Your task to perform on an android device: Turn on the flashlight Image 0: 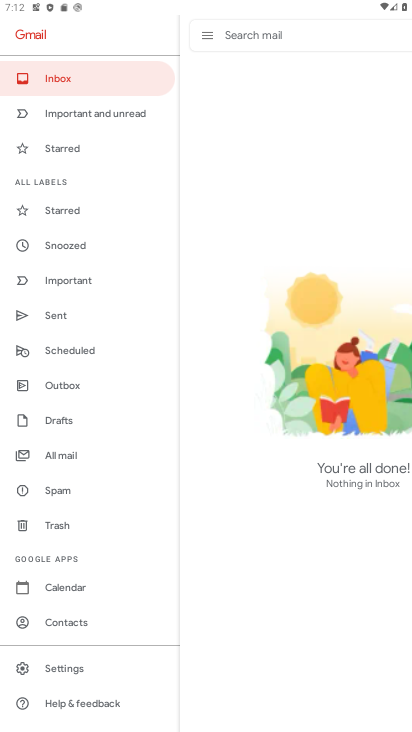
Step 0: press home button
Your task to perform on an android device: Turn on the flashlight Image 1: 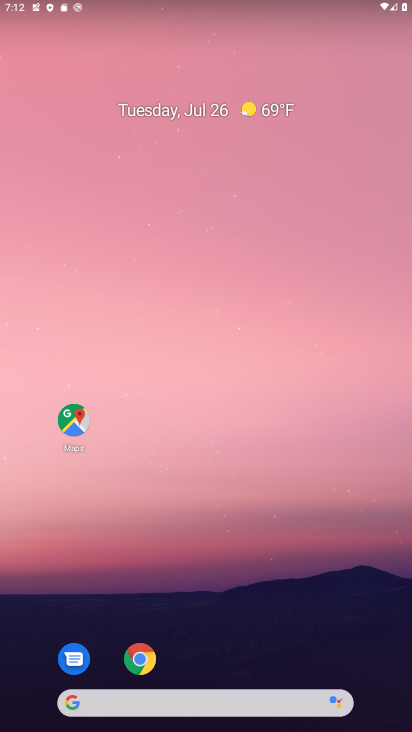
Step 1: drag from (265, 705) to (299, 86)
Your task to perform on an android device: Turn on the flashlight Image 2: 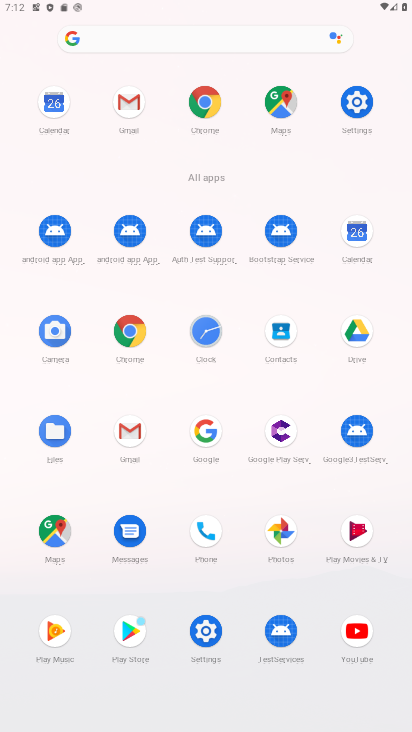
Step 2: click (354, 115)
Your task to perform on an android device: Turn on the flashlight Image 3: 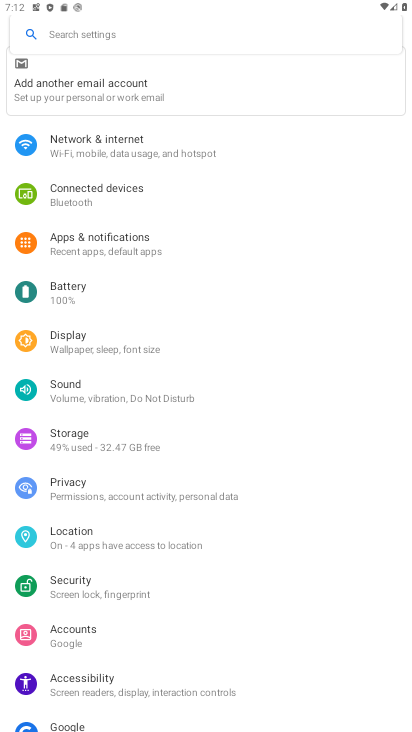
Step 3: click (84, 37)
Your task to perform on an android device: Turn on the flashlight Image 4: 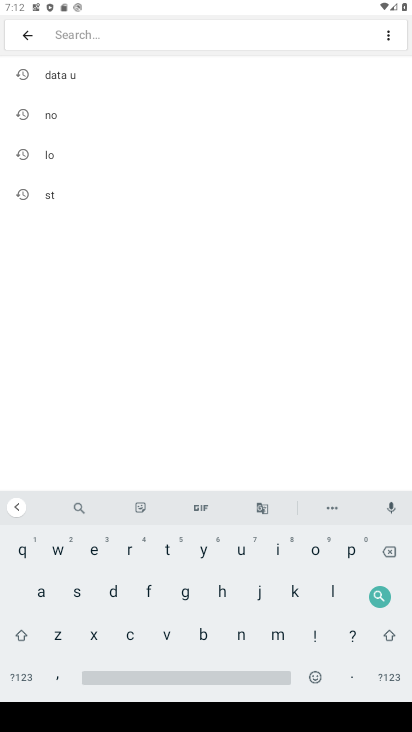
Step 4: click (150, 600)
Your task to perform on an android device: Turn on the flashlight Image 5: 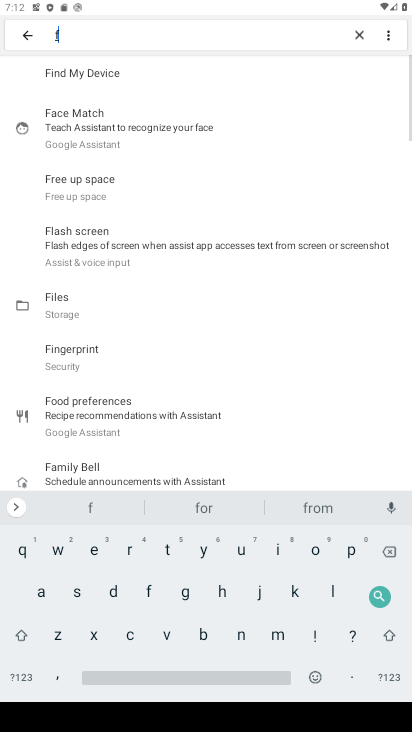
Step 5: click (338, 590)
Your task to perform on an android device: Turn on the flashlight Image 6: 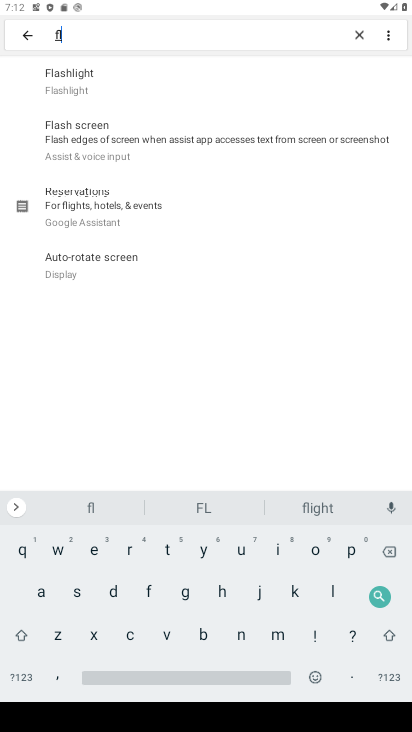
Step 6: click (104, 81)
Your task to perform on an android device: Turn on the flashlight Image 7: 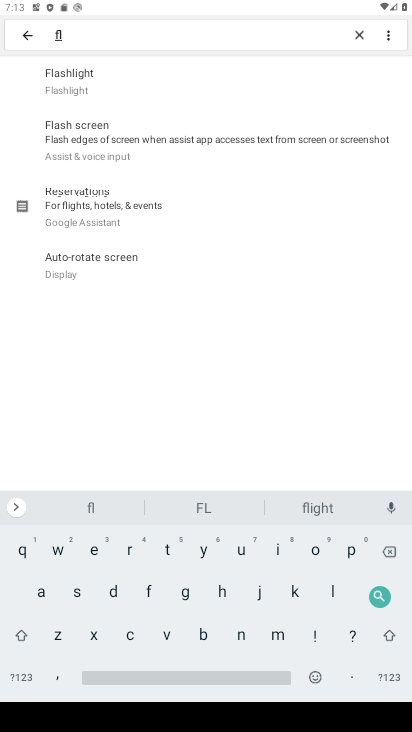
Step 7: click (102, 83)
Your task to perform on an android device: Turn on the flashlight Image 8: 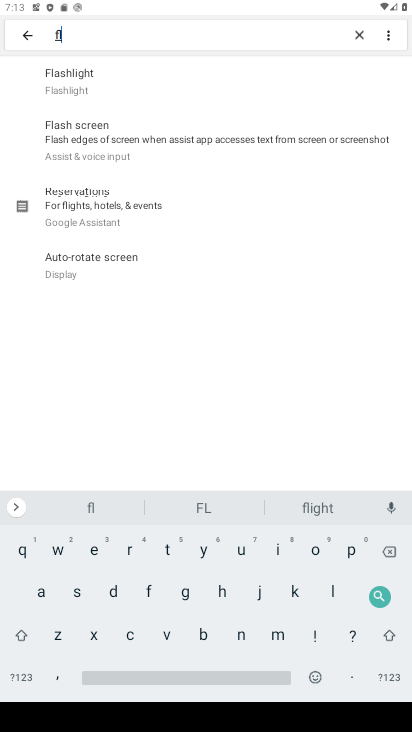
Step 8: task complete